Your task to perform on an android device: toggle notifications settings in the gmail app Image 0: 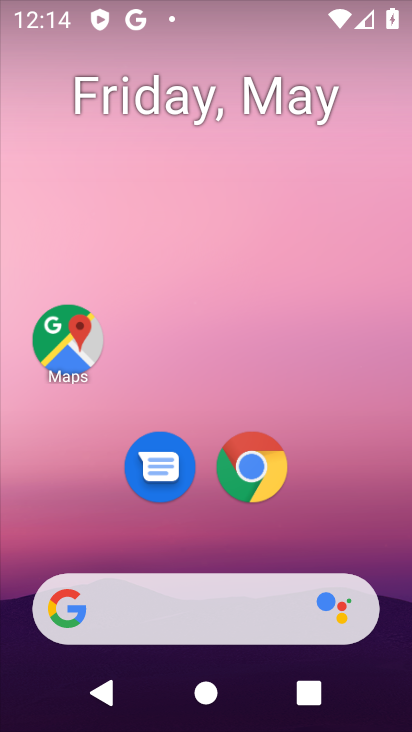
Step 0: drag from (325, 532) to (246, 19)
Your task to perform on an android device: toggle notifications settings in the gmail app Image 1: 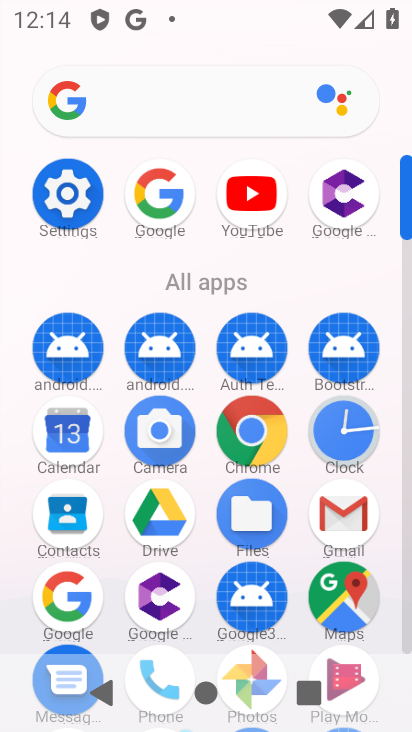
Step 1: drag from (200, 503) to (210, 306)
Your task to perform on an android device: toggle notifications settings in the gmail app Image 2: 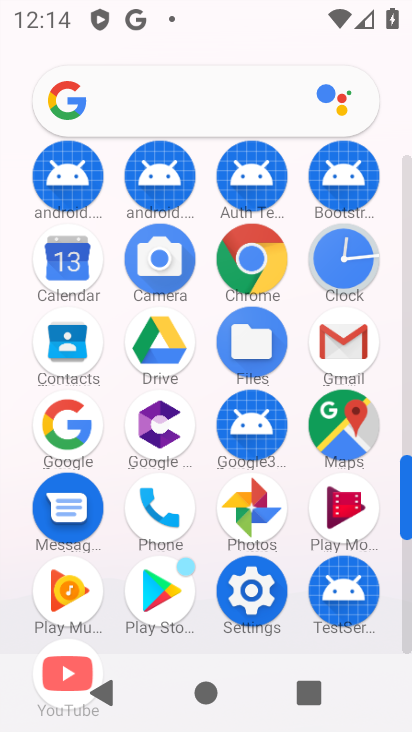
Step 2: click (343, 343)
Your task to perform on an android device: toggle notifications settings in the gmail app Image 3: 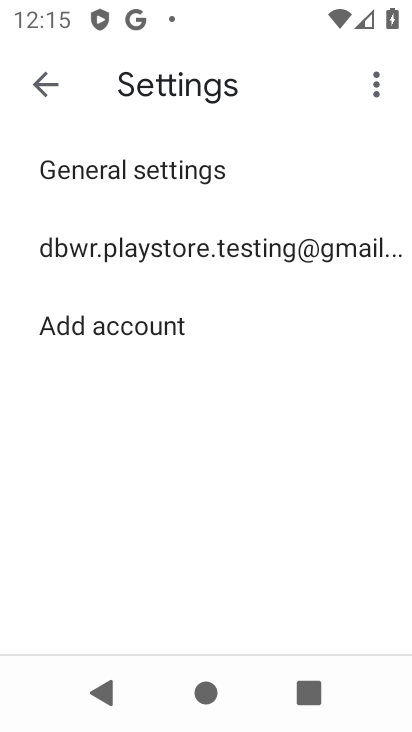
Step 3: click (319, 249)
Your task to perform on an android device: toggle notifications settings in the gmail app Image 4: 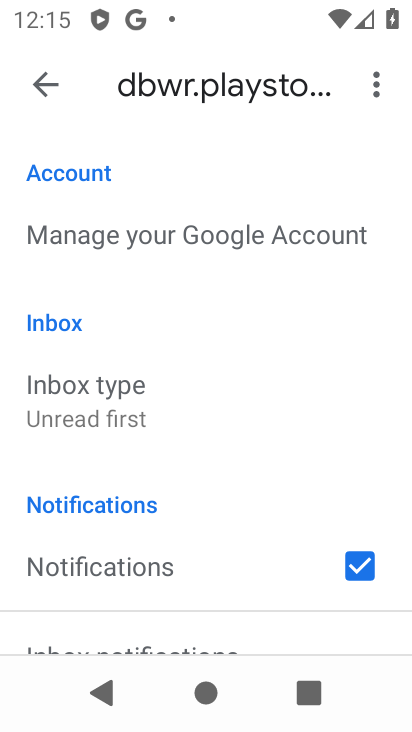
Step 4: drag from (162, 510) to (238, 397)
Your task to perform on an android device: toggle notifications settings in the gmail app Image 5: 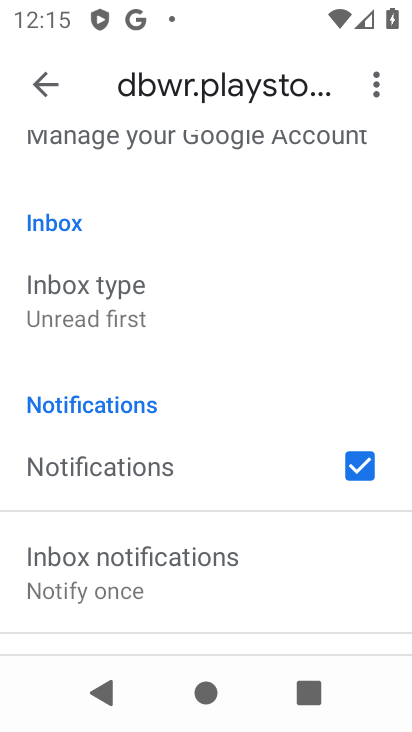
Step 5: drag from (189, 584) to (263, 401)
Your task to perform on an android device: toggle notifications settings in the gmail app Image 6: 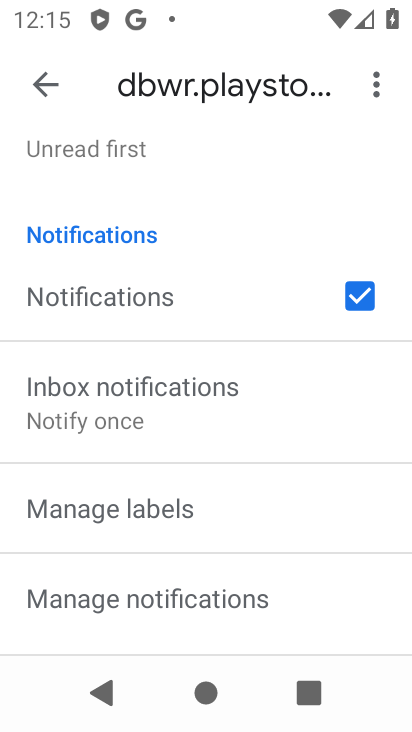
Step 6: drag from (218, 535) to (309, 374)
Your task to perform on an android device: toggle notifications settings in the gmail app Image 7: 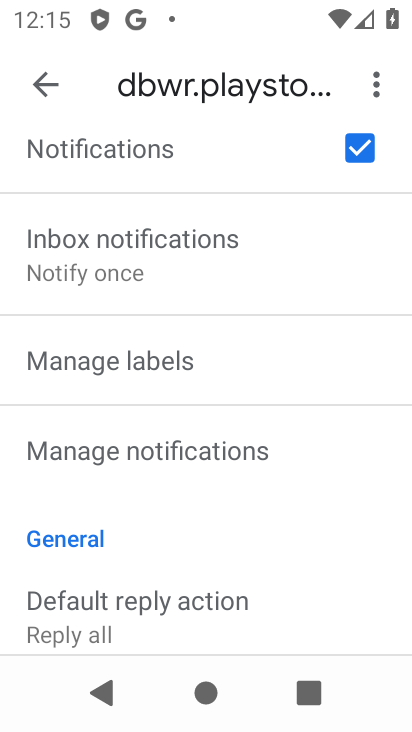
Step 7: click (208, 456)
Your task to perform on an android device: toggle notifications settings in the gmail app Image 8: 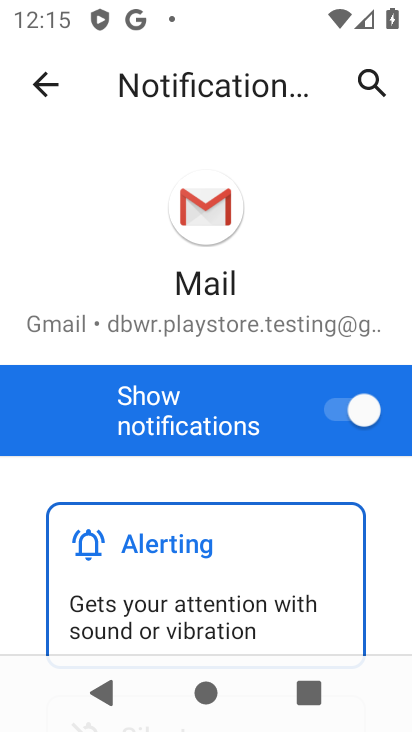
Step 8: click (358, 412)
Your task to perform on an android device: toggle notifications settings in the gmail app Image 9: 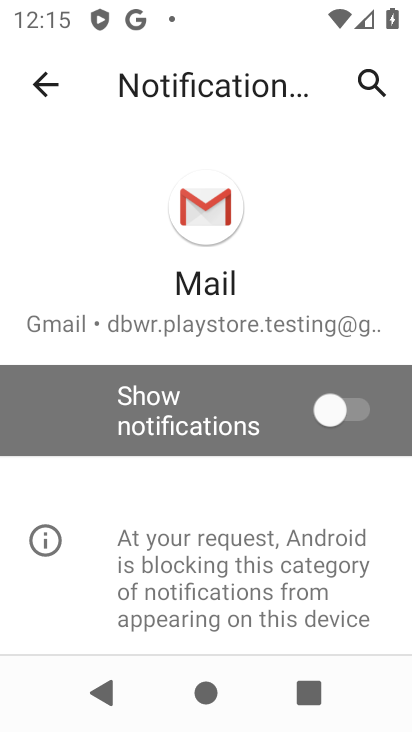
Step 9: task complete